Your task to perform on an android device: Open sound settings Image 0: 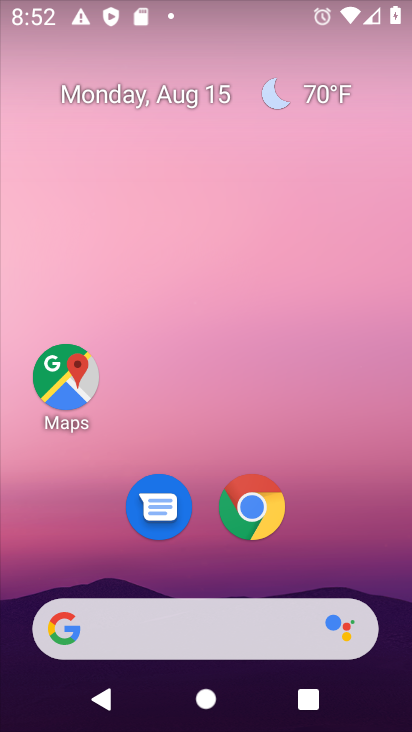
Step 0: drag from (275, 653) to (366, 43)
Your task to perform on an android device: Open sound settings Image 1: 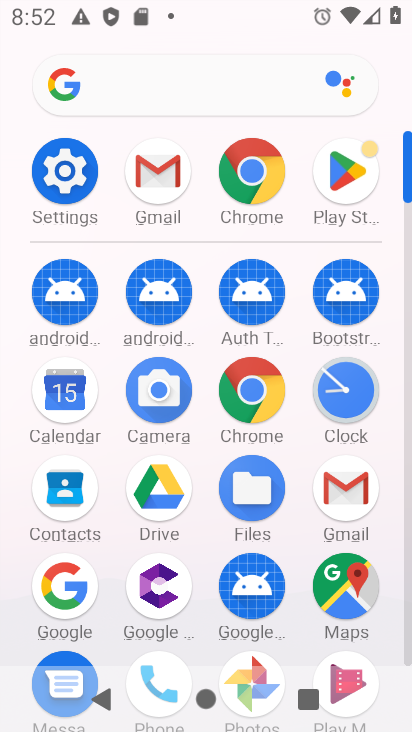
Step 1: click (94, 171)
Your task to perform on an android device: Open sound settings Image 2: 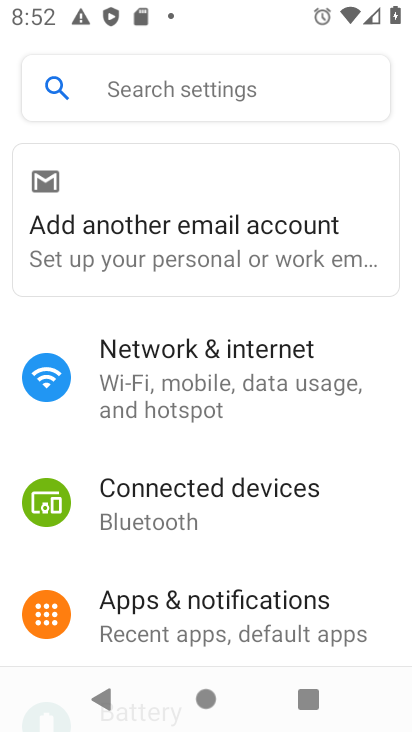
Step 2: drag from (209, 599) to (301, 192)
Your task to perform on an android device: Open sound settings Image 3: 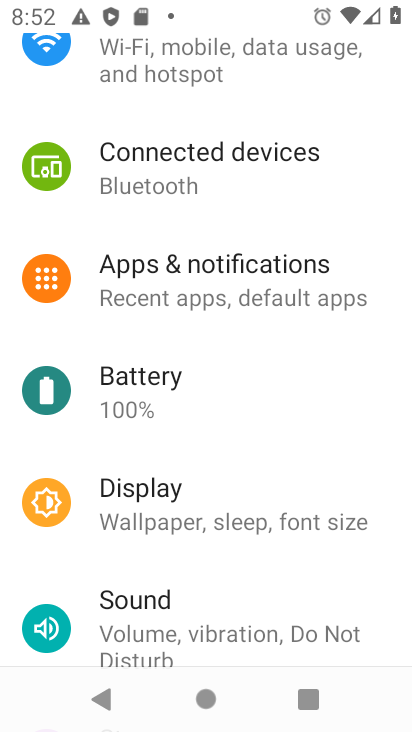
Step 3: click (215, 612)
Your task to perform on an android device: Open sound settings Image 4: 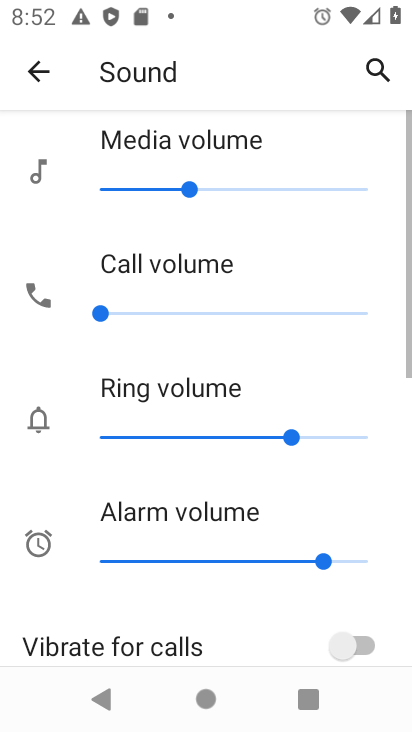
Step 4: task complete